Your task to perform on an android device: see tabs open on other devices in the chrome app Image 0: 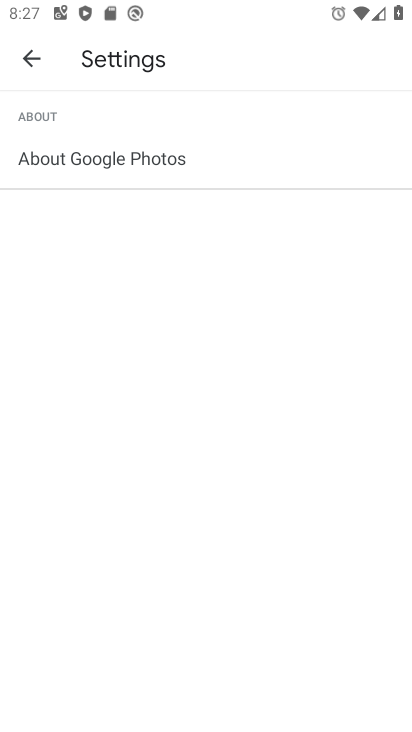
Step 0: press home button
Your task to perform on an android device: see tabs open on other devices in the chrome app Image 1: 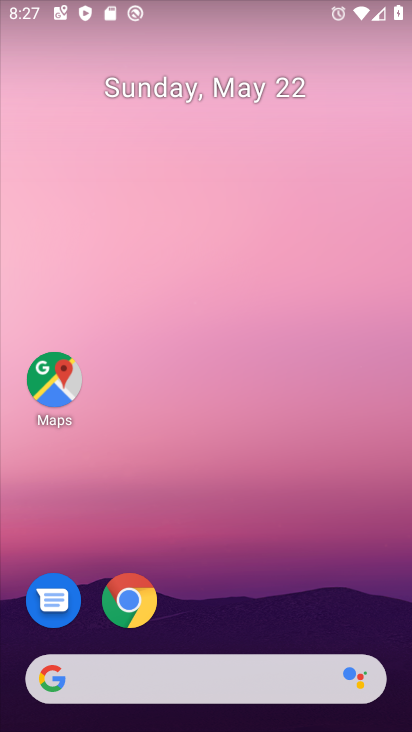
Step 1: drag from (223, 663) to (226, 237)
Your task to perform on an android device: see tabs open on other devices in the chrome app Image 2: 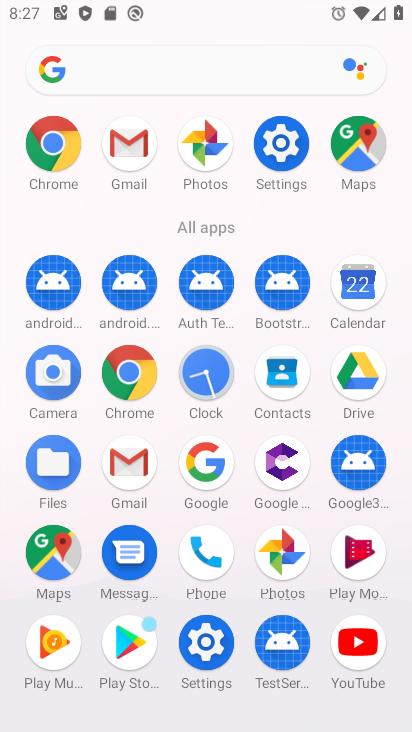
Step 2: drag from (210, 576) to (270, 340)
Your task to perform on an android device: see tabs open on other devices in the chrome app Image 3: 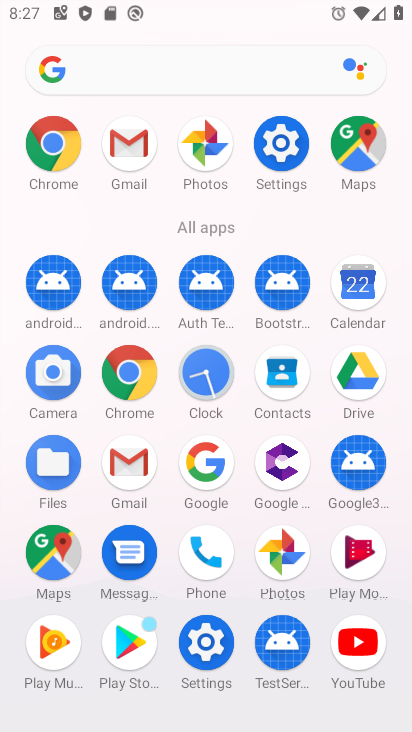
Step 3: drag from (297, 470) to (282, 259)
Your task to perform on an android device: see tabs open on other devices in the chrome app Image 4: 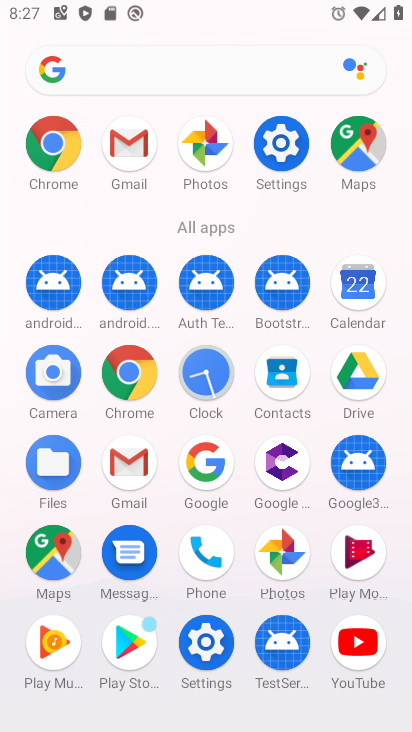
Step 4: click (68, 157)
Your task to perform on an android device: see tabs open on other devices in the chrome app Image 5: 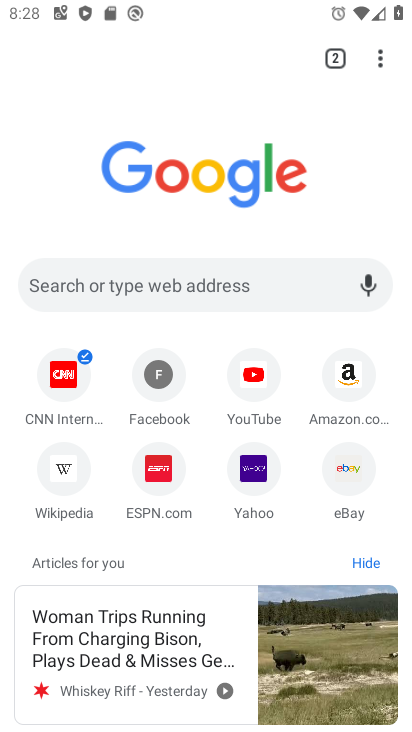
Step 5: task complete